Your task to perform on an android device: toggle wifi Image 0: 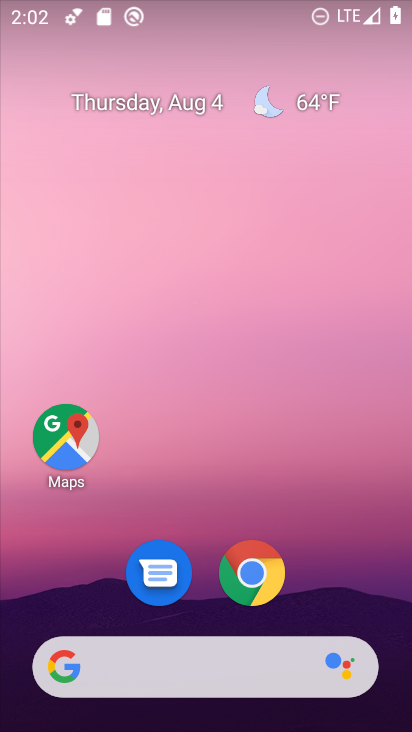
Step 0: drag from (365, 576) to (379, 133)
Your task to perform on an android device: toggle wifi Image 1: 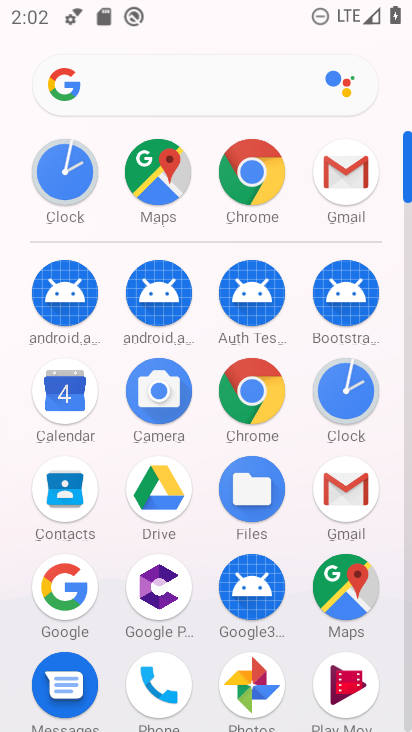
Step 1: drag from (197, 604) to (257, 222)
Your task to perform on an android device: toggle wifi Image 2: 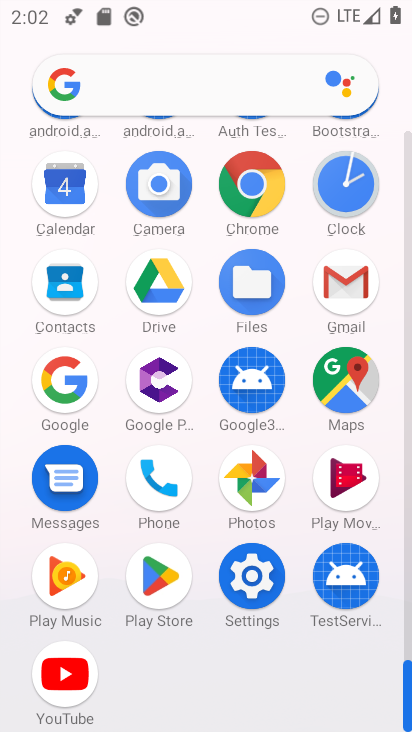
Step 2: click (267, 595)
Your task to perform on an android device: toggle wifi Image 3: 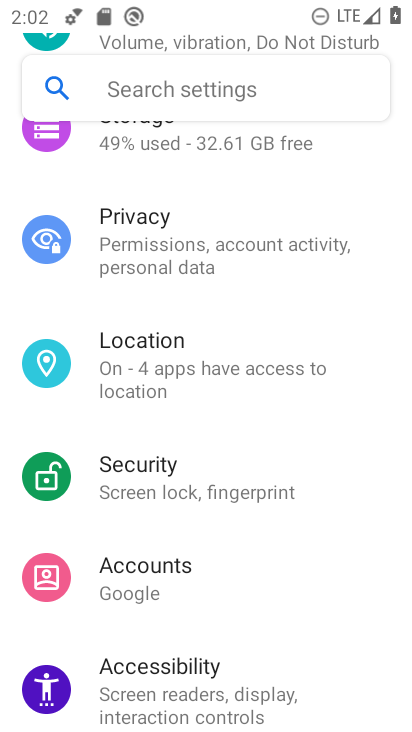
Step 3: drag from (274, 153) to (255, 617)
Your task to perform on an android device: toggle wifi Image 4: 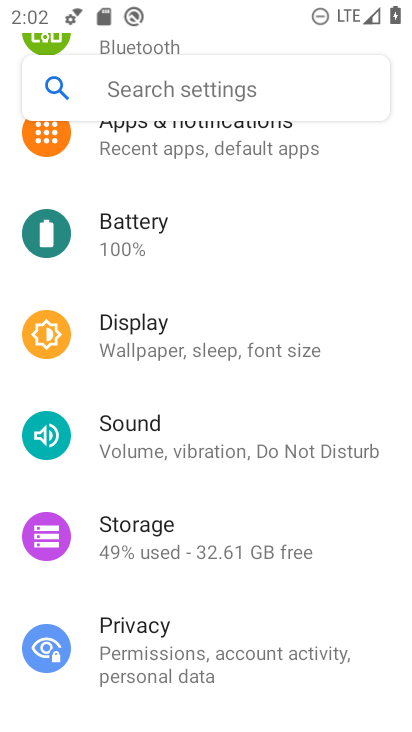
Step 4: drag from (220, 168) to (229, 664)
Your task to perform on an android device: toggle wifi Image 5: 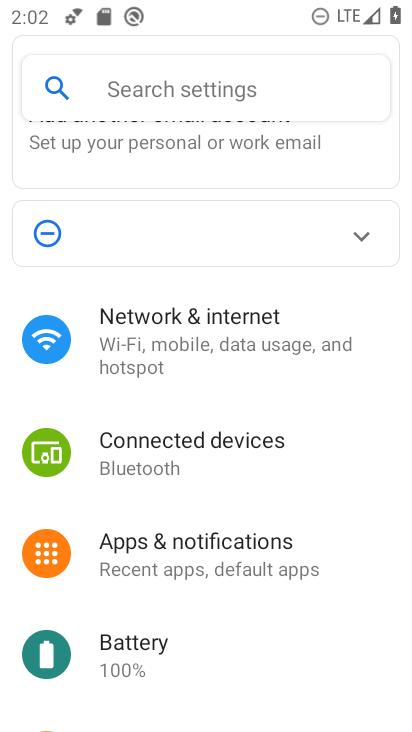
Step 5: click (196, 318)
Your task to perform on an android device: toggle wifi Image 6: 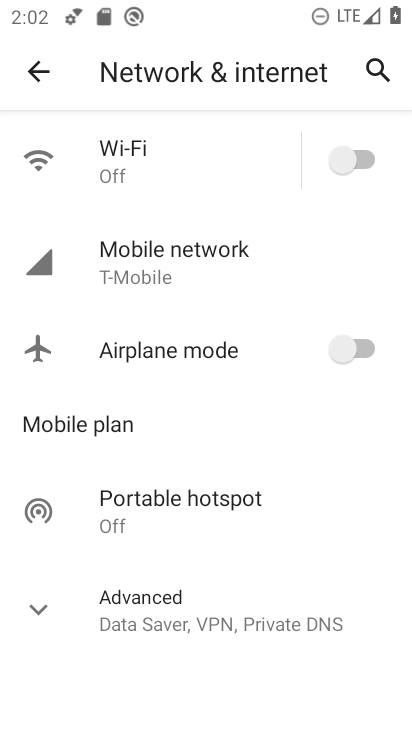
Step 6: click (341, 154)
Your task to perform on an android device: toggle wifi Image 7: 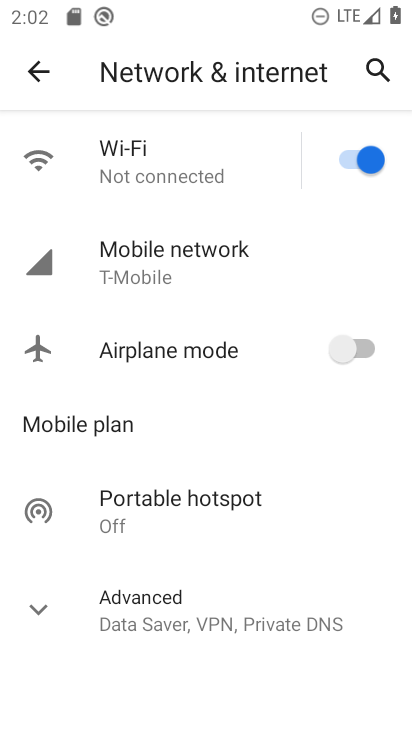
Step 7: task complete